Your task to perform on an android device: Open Yahoo.com Image 0: 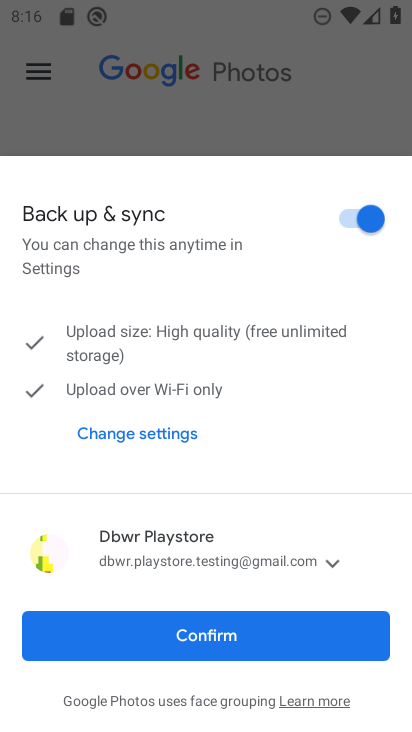
Step 0: press home button
Your task to perform on an android device: Open Yahoo.com Image 1: 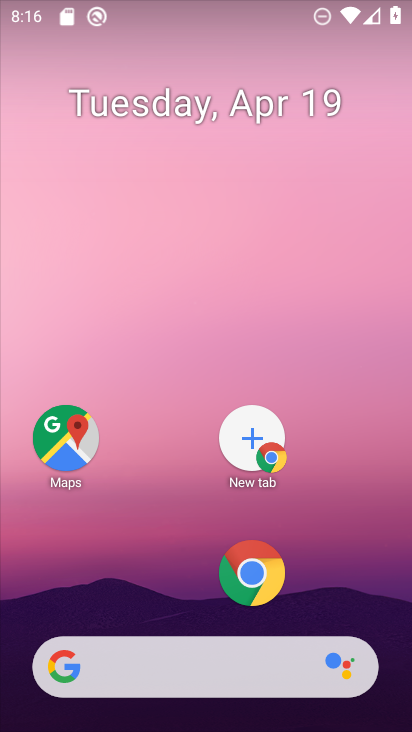
Step 1: click (252, 434)
Your task to perform on an android device: Open Yahoo.com Image 2: 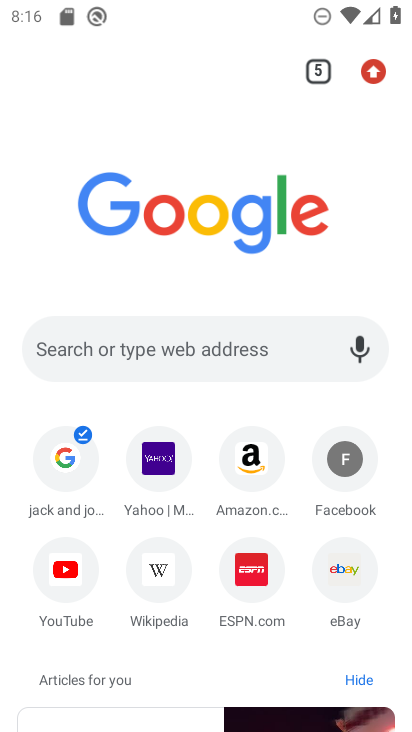
Step 2: click (156, 467)
Your task to perform on an android device: Open Yahoo.com Image 3: 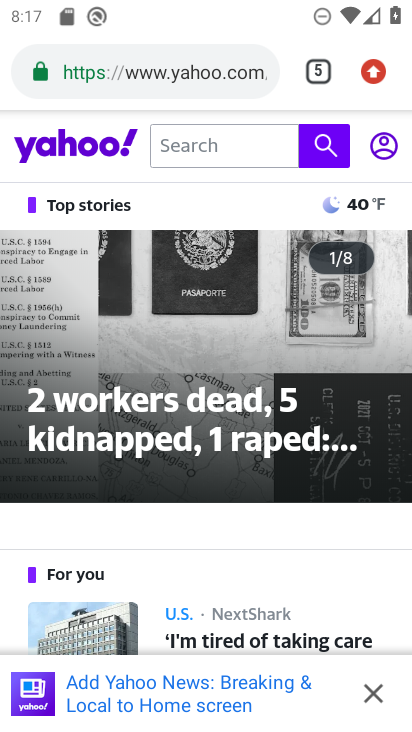
Step 3: task complete